Your task to perform on an android device: Show me recent news Image 0: 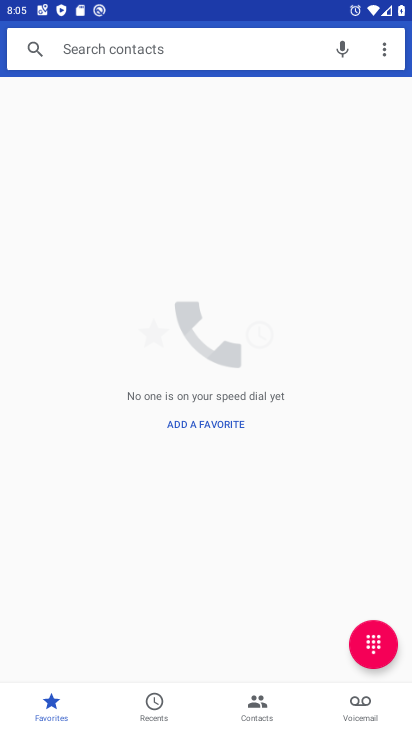
Step 0: press home button
Your task to perform on an android device: Show me recent news Image 1: 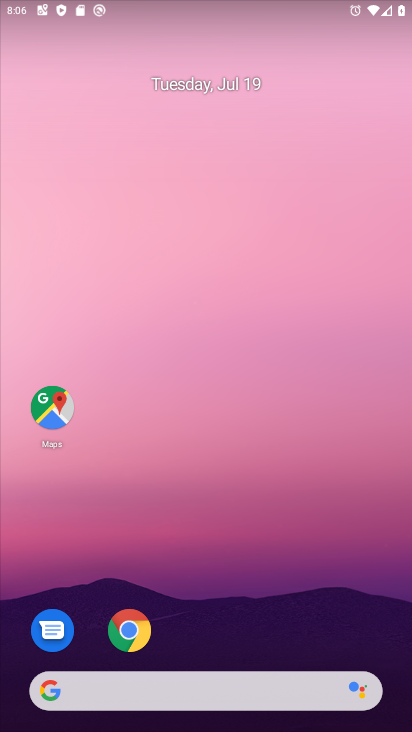
Step 1: drag from (195, 605) to (200, 198)
Your task to perform on an android device: Show me recent news Image 2: 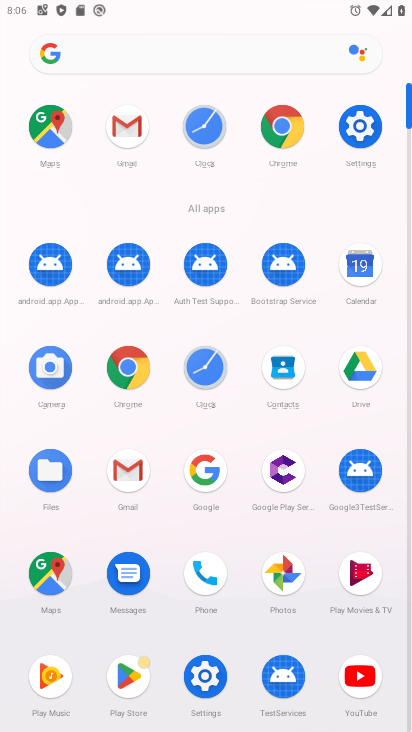
Step 2: click (197, 480)
Your task to perform on an android device: Show me recent news Image 3: 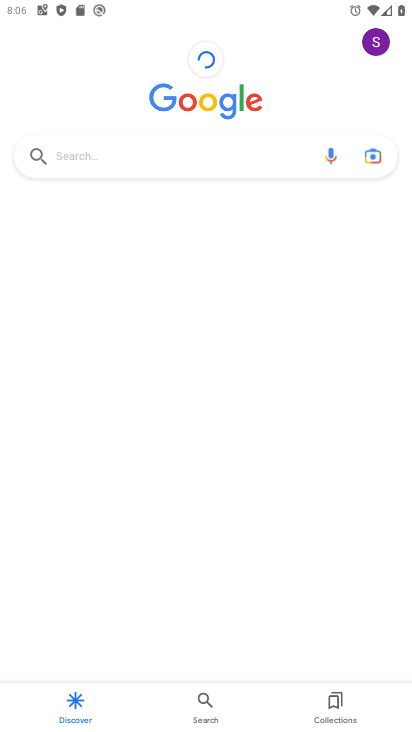
Step 3: click (94, 151)
Your task to perform on an android device: Show me recent news Image 4: 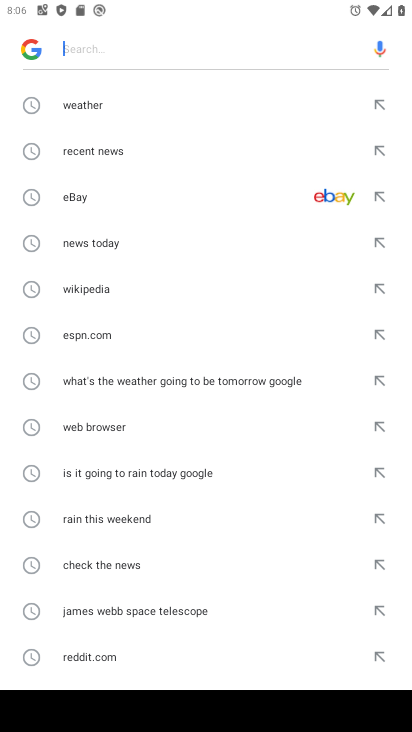
Step 4: click (94, 151)
Your task to perform on an android device: Show me recent news Image 5: 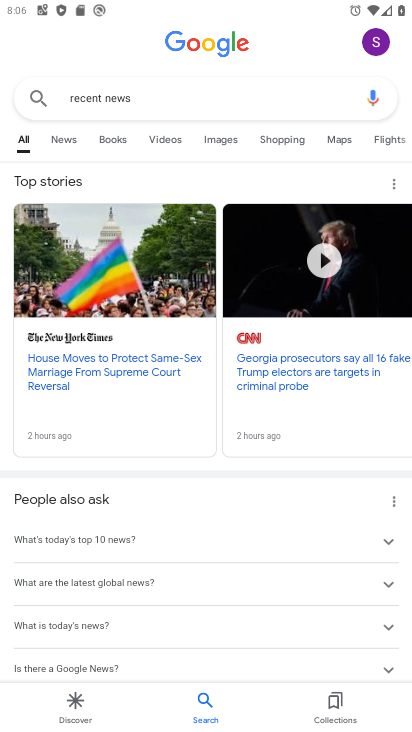
Step 5: task complete